Your task to perform on an android device: toggle notifications settings in the gmail app Image 0: 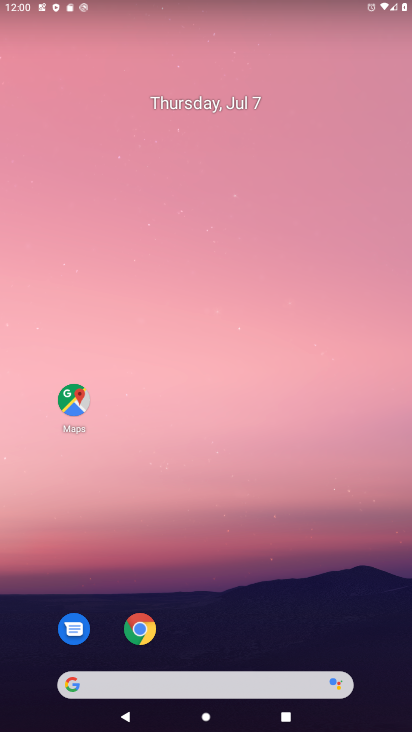
Step 0: drag from (221, 621) to (223, 133)
Your task to perform on an android device: toggle notifications settings in the gmail app Image 1: 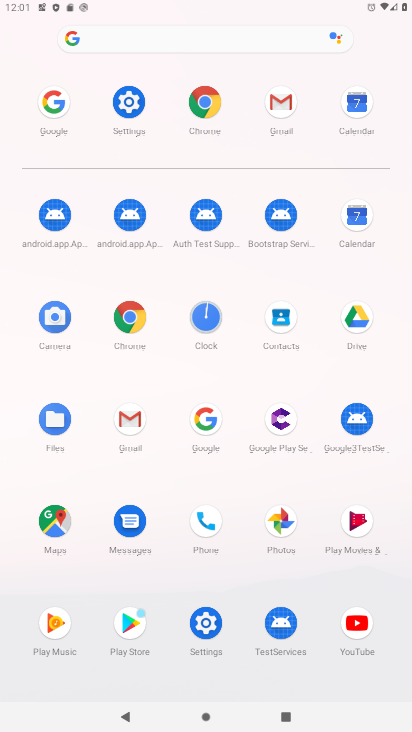
Step 1: click (276, 105)
Your task to perform on an android device: toggle notifications settings in the gmail app Image 2: 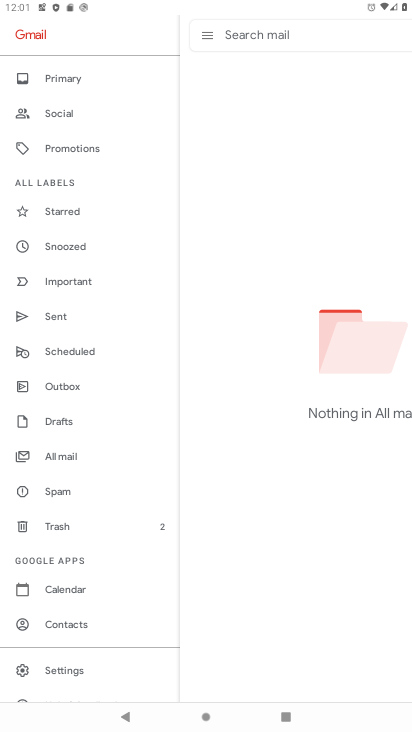
Step 2: click (68, 666)
Your task to perform on an android device: toggle notifications settings in the gmail app Image 3: 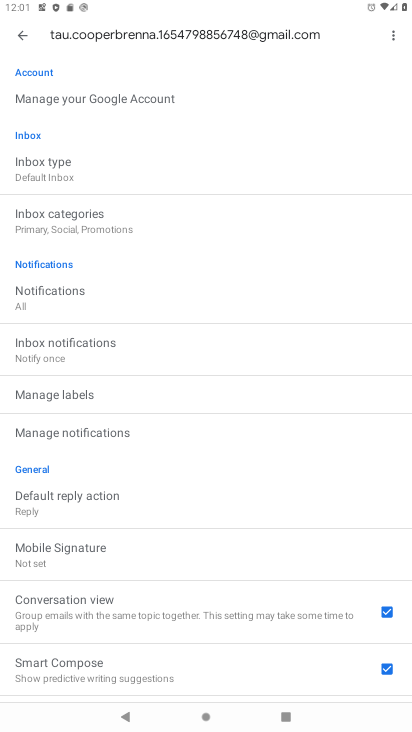
Step 3: click (99, 429)
Your task to perform on an android device: toggle notifications settings in the gmail app Image 4: 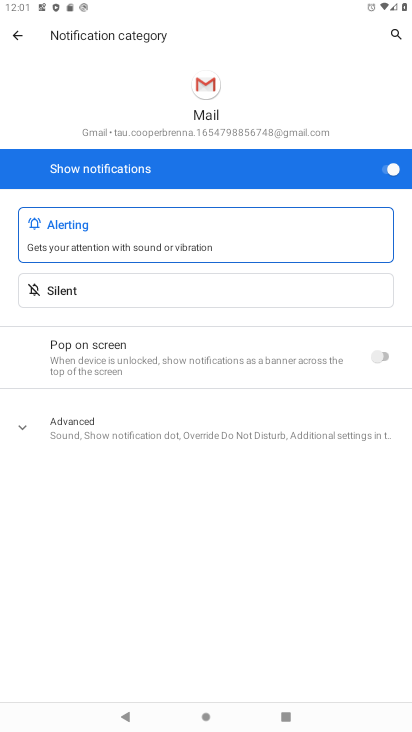
Step 4: click (385, 165)
Your task to perform on an android device: toggle notifications settings in the gmail app Image 5: 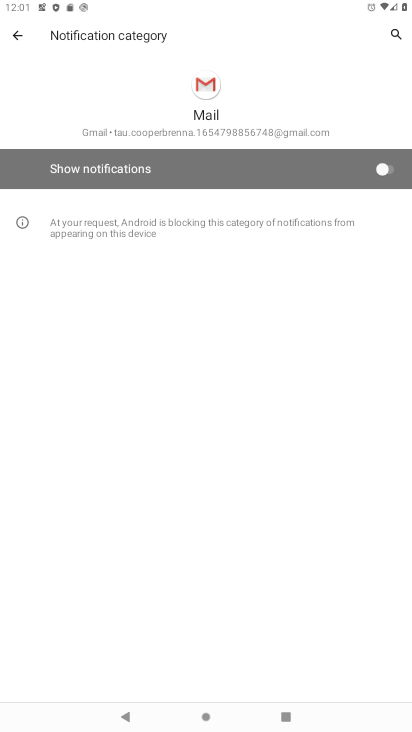
Step 5: task complete